Your task to perform on an android device: turn on location history Image 0: 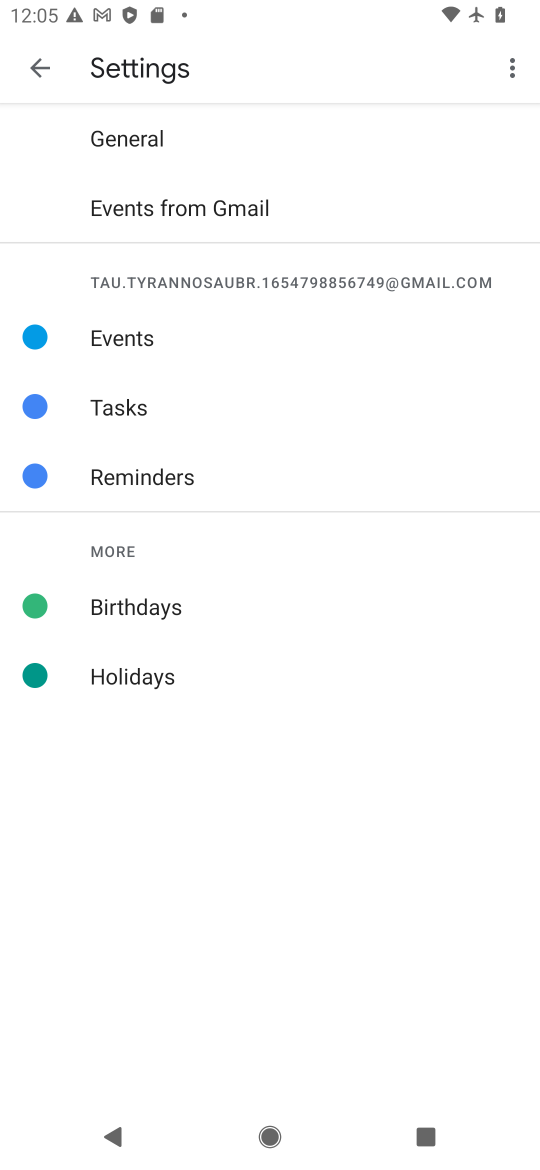
Step 0: press home button
Your task to perform on an android device: turn on location history Image 1: 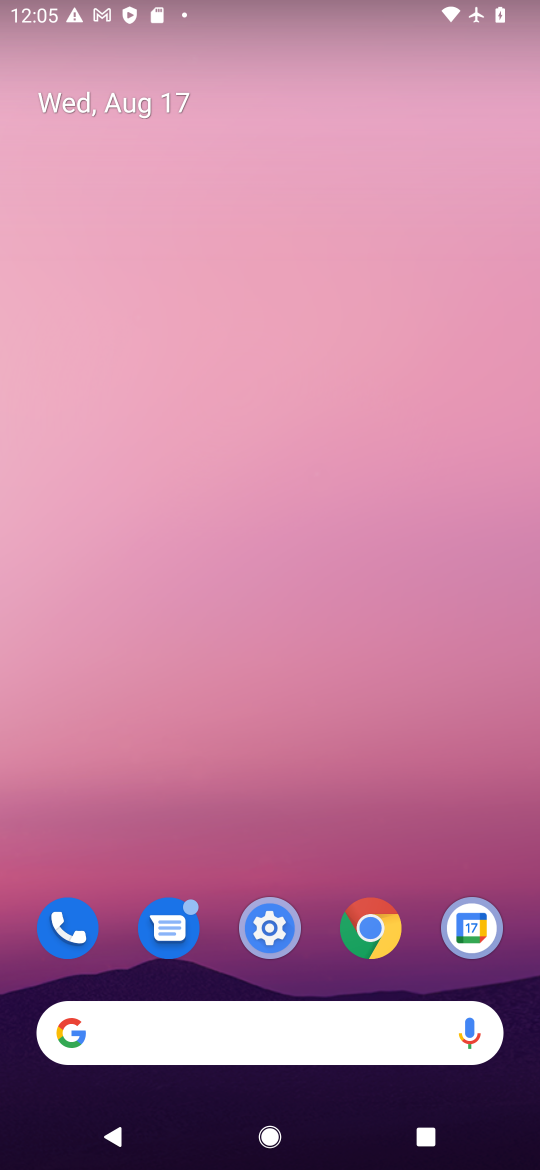
Step 1: drag from (275, 847) to (284, 196)
Your task to perform on an android device: turn on location history Image 2: 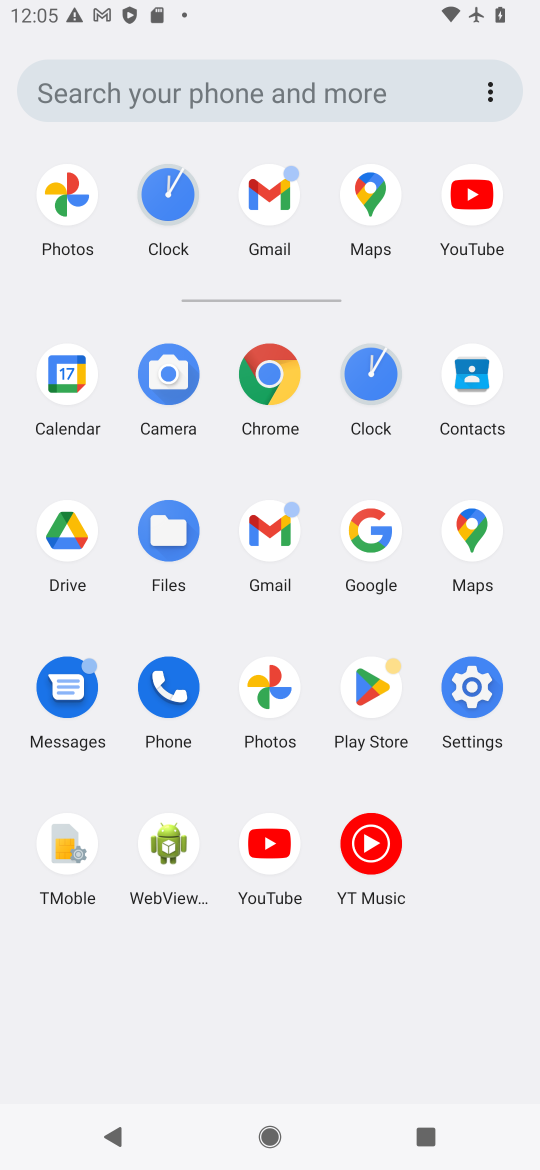
Step 2: click (456, 685)
Your task to perform on an android device: turn on location history Image 3: 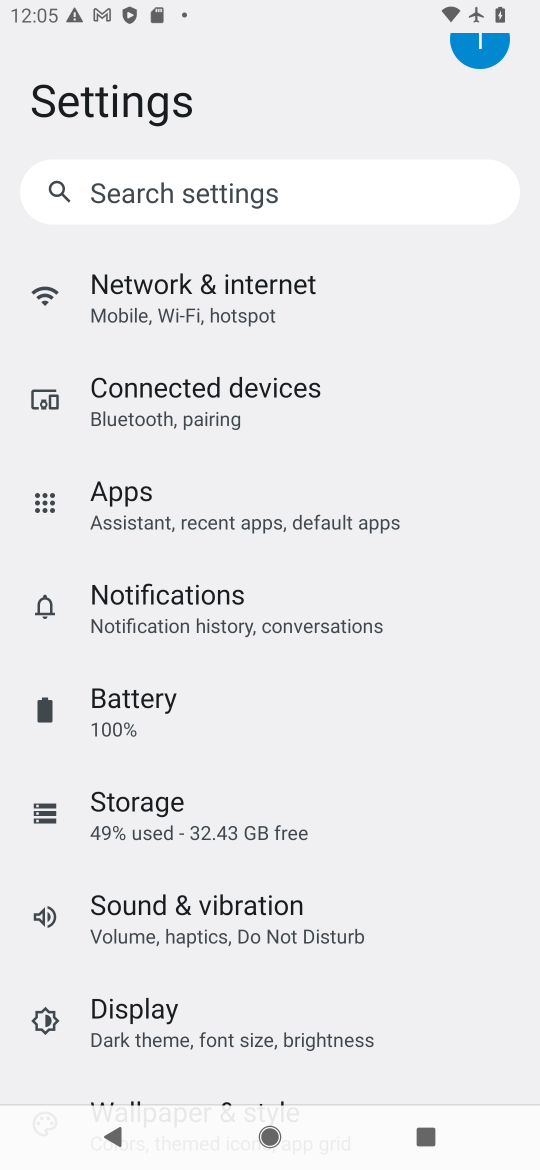
Step 3: drag from (218, 1028) to (200, 556)
Your task to perform on an android device: turn on location history Image 4: 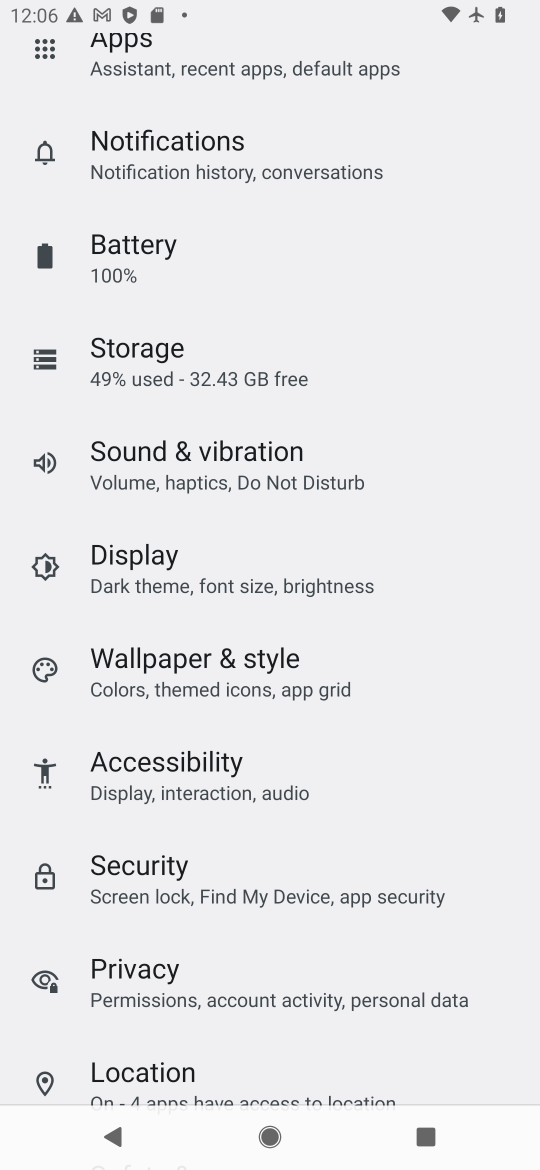
Step 4: click (195, 1061)
Your task to perform on an android device: turn on location history Image 5: 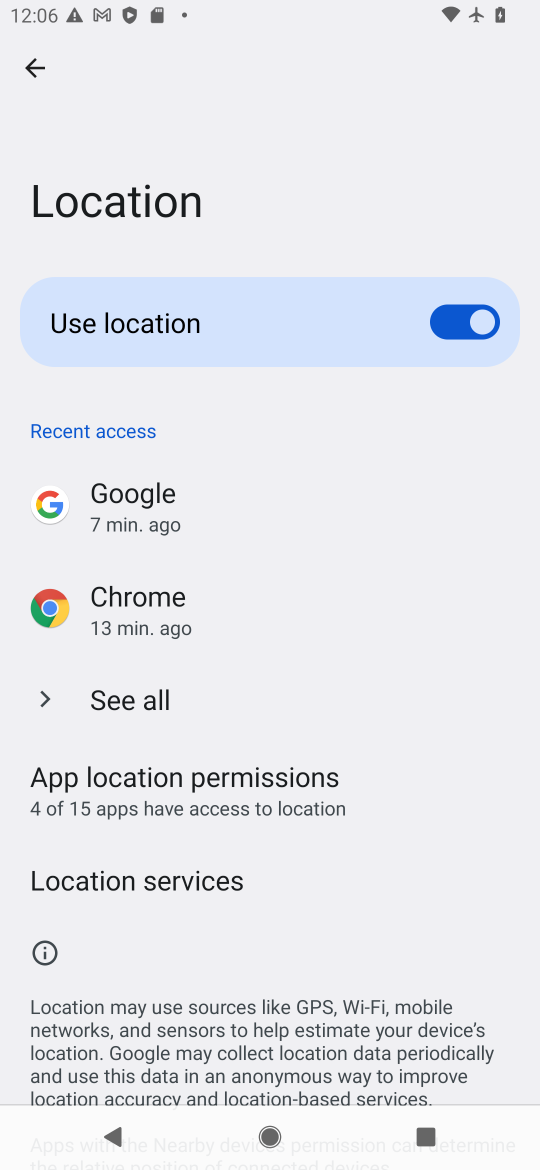
Step 5: click (185, 877)
Your task to perform on an android device: turn on location history Image 6: 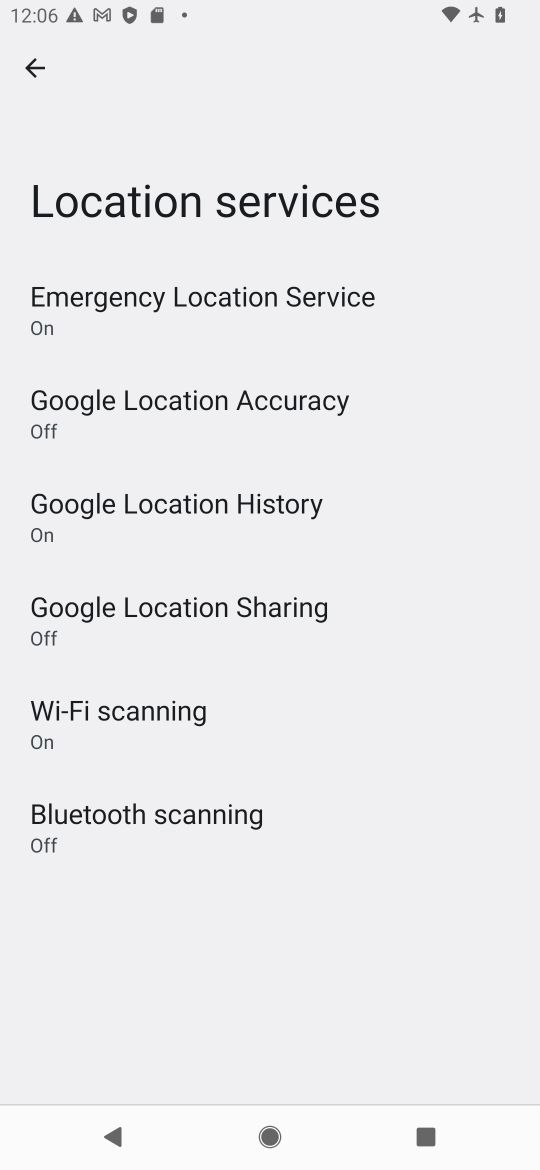
Step 6: click (289, 489)
Your task to perform on an android device: turn on location history Image 7: 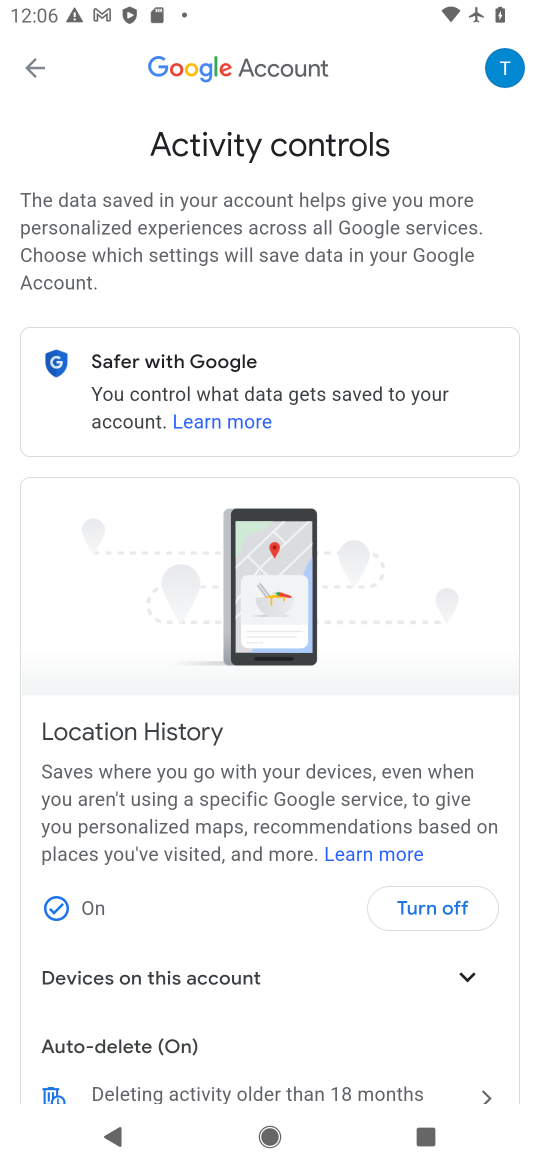
Step 7: task complete